Your task to perform on an android device: add a contact Image 0: 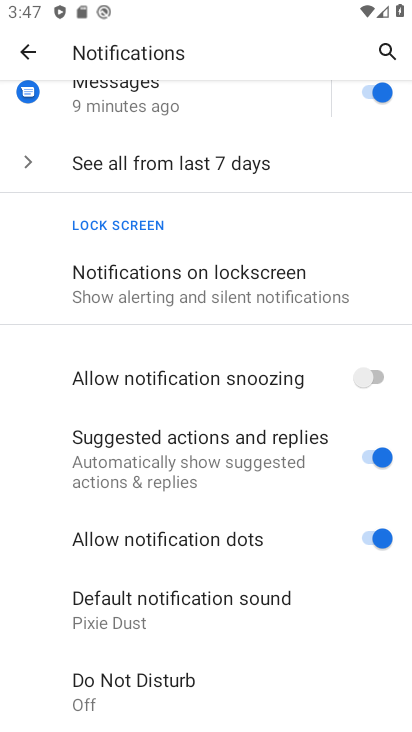
Step 0: press home button
Your task to perform on an android device: add a contact Image 1: 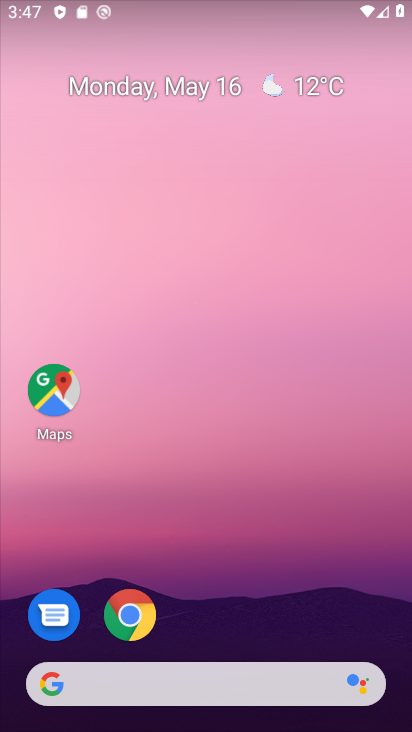
Step 1: drag from (173, 726) to (174, 118)
Your task to perform on an android device: add a contact Image 2: 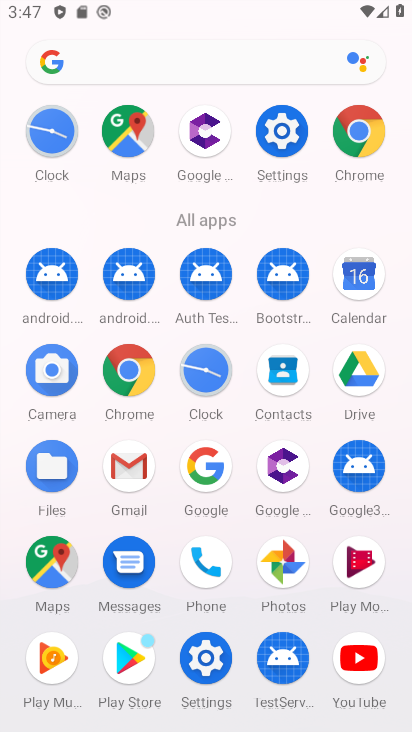
Step 2: click (278, 371)
Your task to perform on an android device: add a contact Image 3: 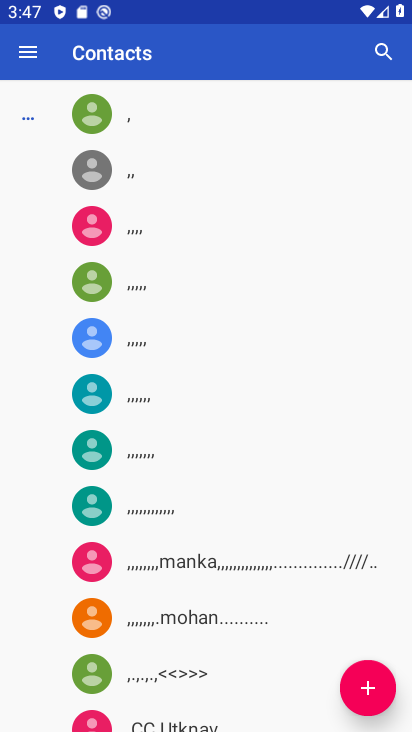
Step 3: click (372, 689)
Your task to perform on an android device: add a contact Image 4: 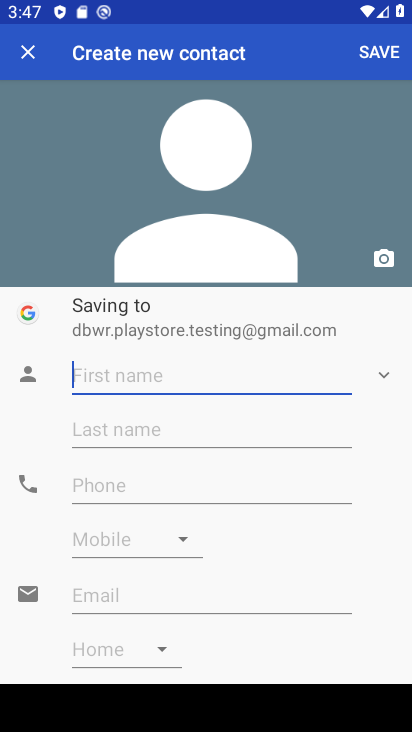
Step 4: type "nikhilsssn"
Your task to perform on an android device: add a contact Image 5: 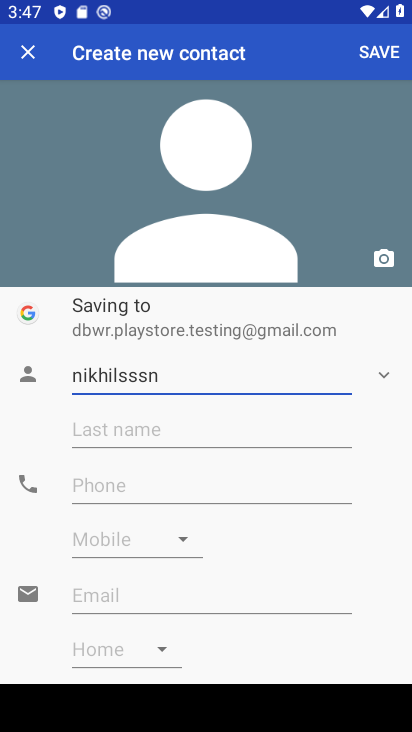
Step 5: click (94, 486)
Your task to perform on an android device: add a contact Image 6: 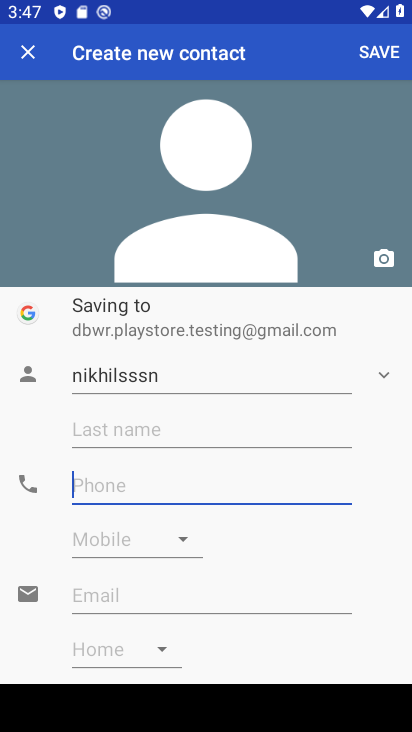
Step 6: type "987654"
Your task to perform on an android device: add a contact Image 7: 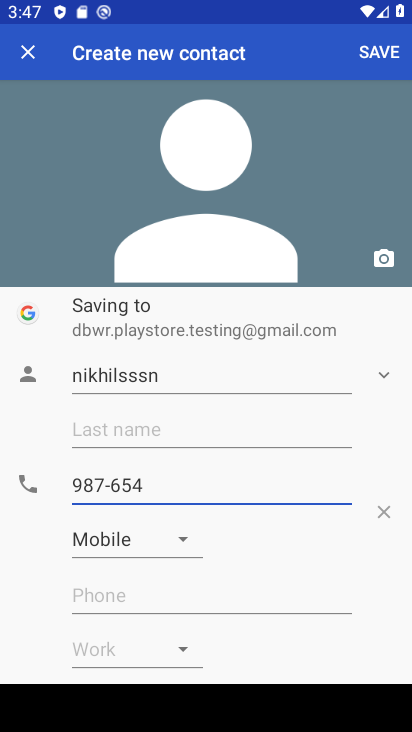
Step 7: click (369, 51)
Your task to perform on an android device: add a contact Image 8: 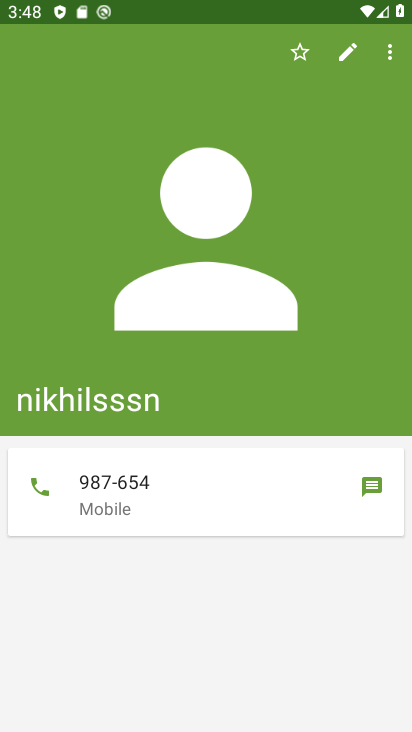
Step 8: task complete